Your task to perform on an android device: turn notification dots on Image 0: 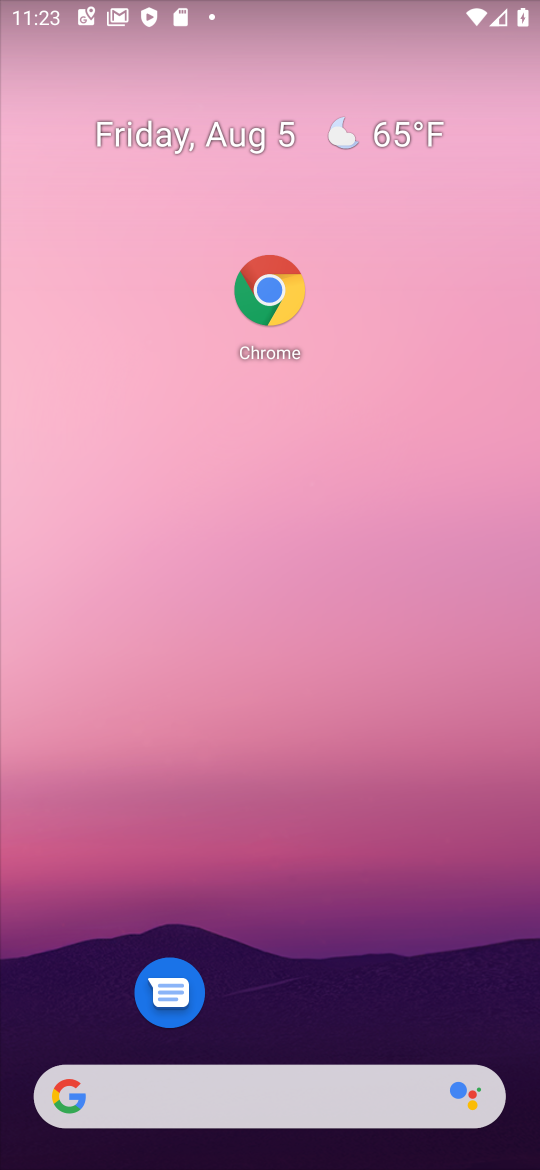
Step 0: drag from (249, 718) to (212, 40)
Your task to perform on an android device: turn notification dots on Image 1: 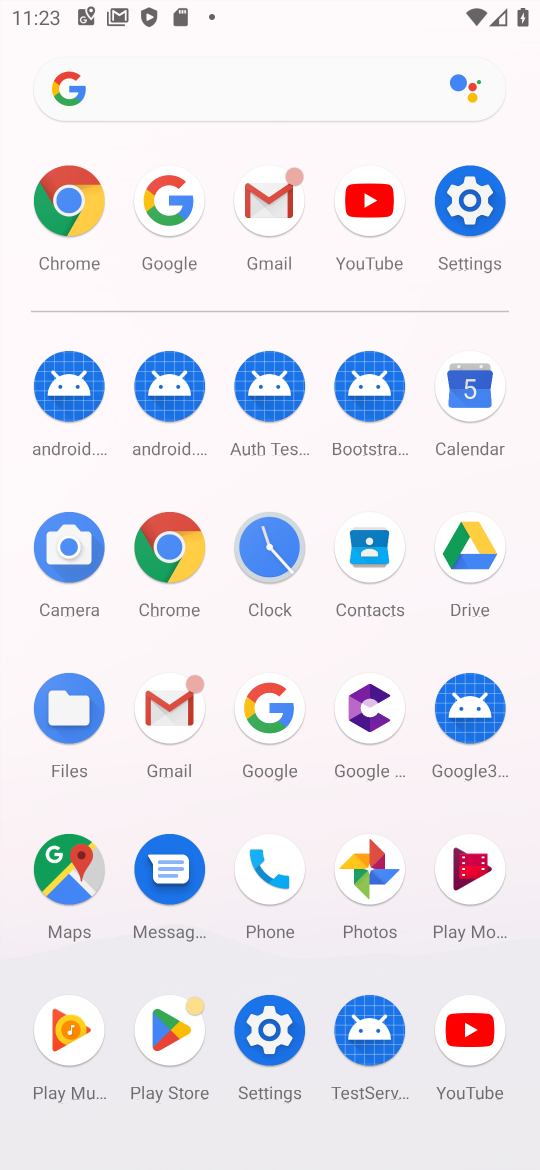
Step 1: click (497, 211)
Your task to perform on an android device: turn notification dots on Image 2: 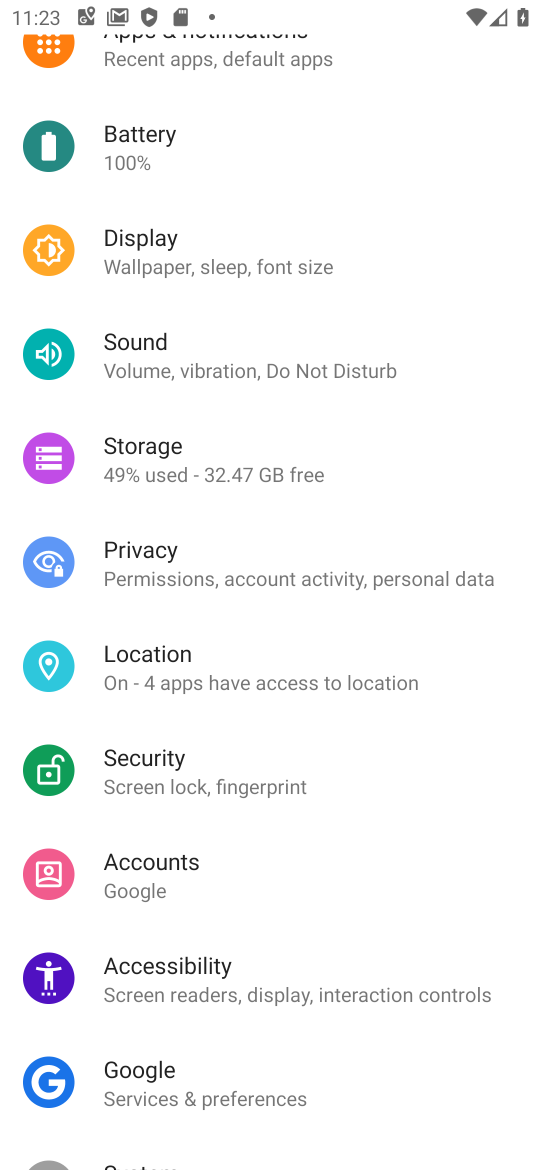
Step 2: drag from (437, 256) to (530, 1134)
Your task to perform on an android device: turn notification dots on Image 3: 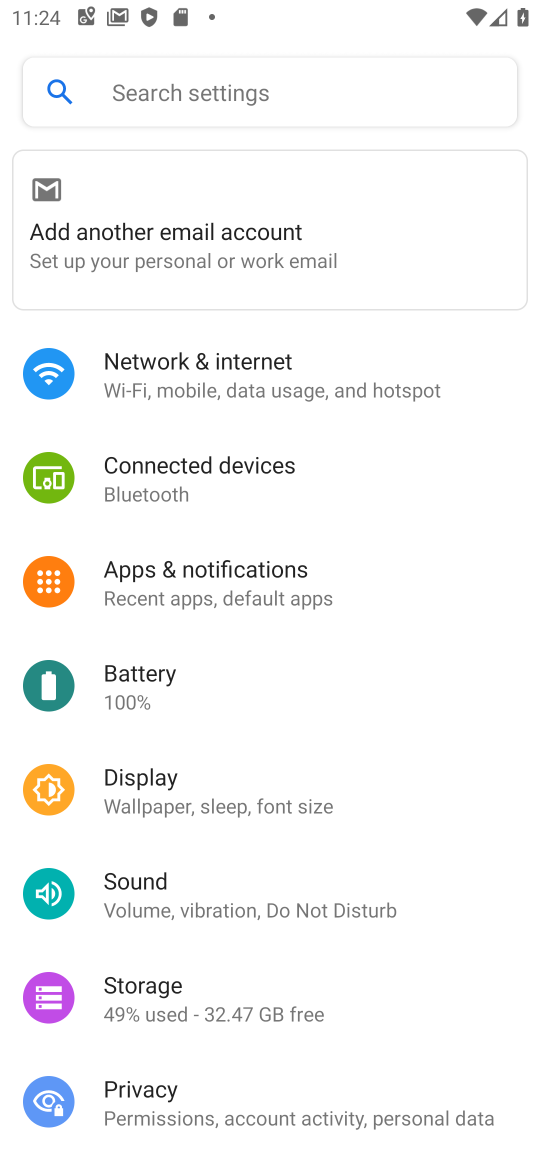
Step 3: click (236, 583)
Your task to perform on an android device: turn notification dots on Image 4: 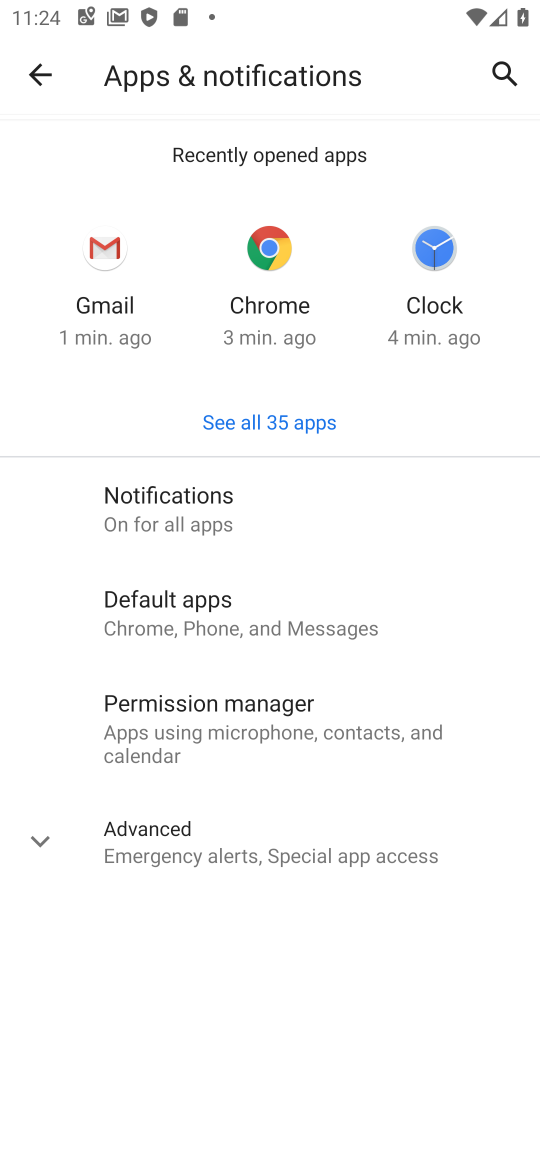
Step 4: click (162, 527)
Your task to perform on an android device: turn notification dots on Image 5: 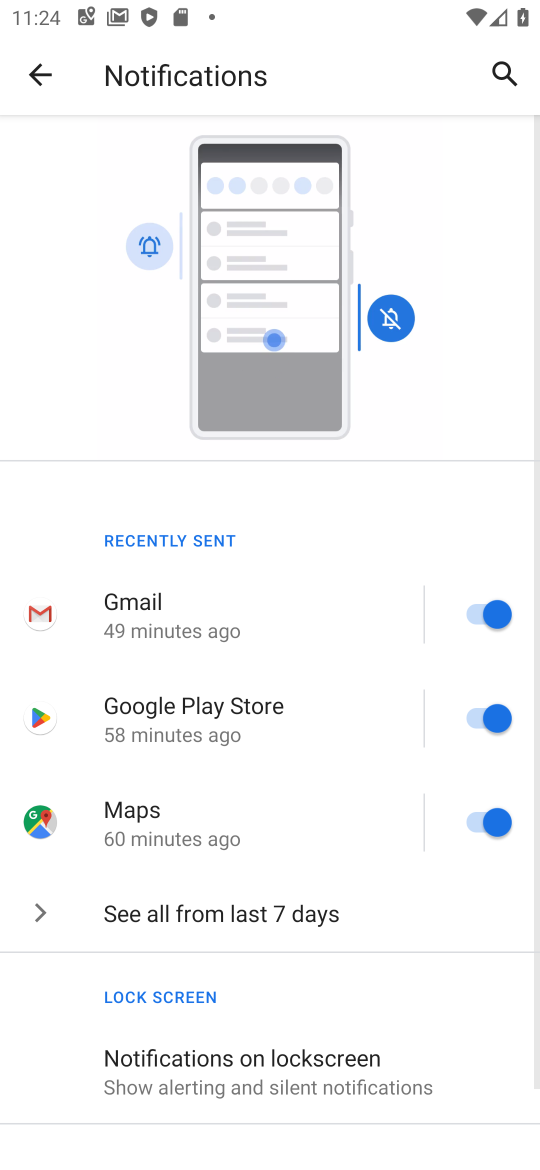
Step 5: drag from (255, 1009) to (48, 258)
Your task to perform on an android device: turn notification dots on Image 6: 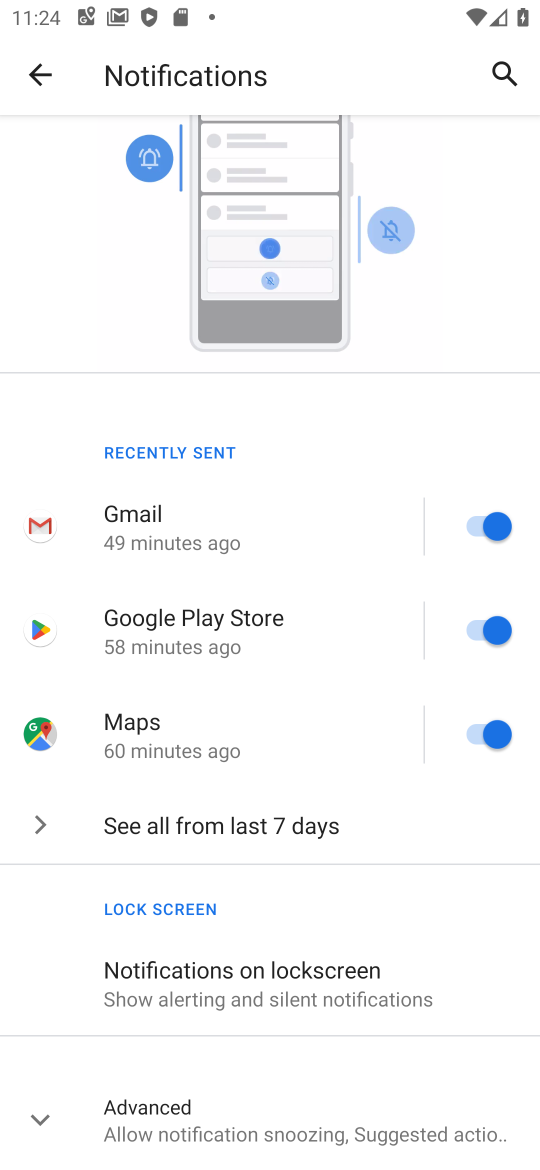
Step 6: click (251, 1138)
Your task to perform on an android device: turn notification dots on Image 7: 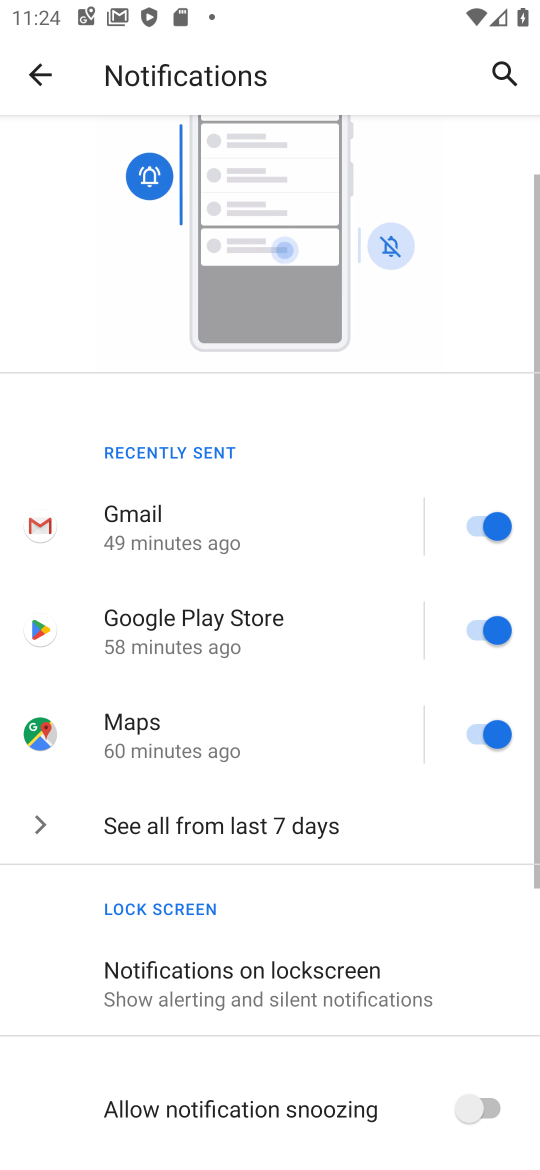
Step 7: task complete